Your task to perform on an android device: Go to Google maps Image 0: 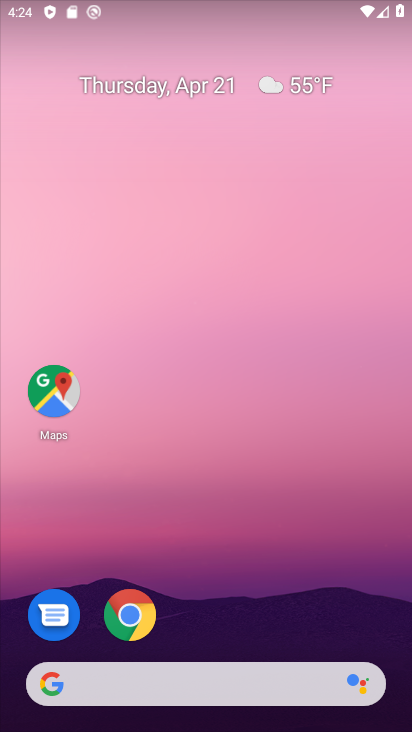
Step 0: click (55, 386)
Your task to perform on an android device: Go to Google maps Image 1: 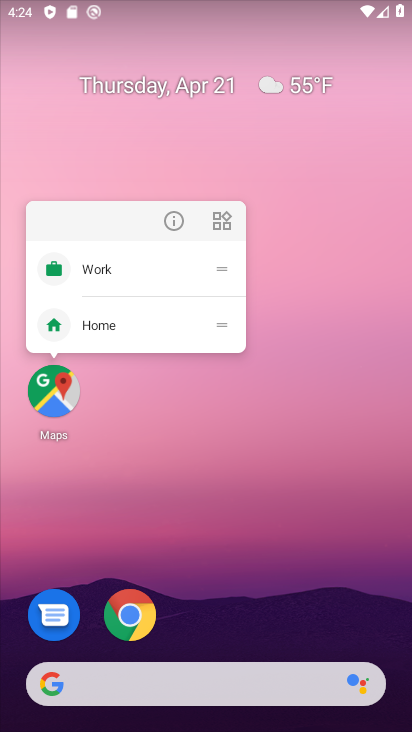
Step 1: click (55, 386)
Your task to perform on an android device: Go to Google maps Image 2: 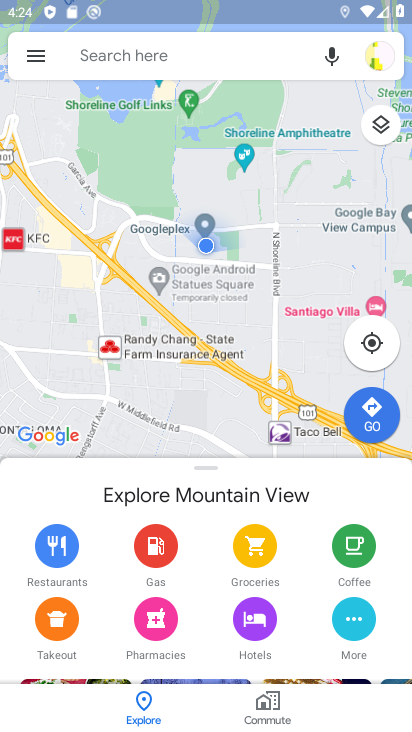
Step 2: task complete